Your task to perform on an android device: Open privacy settings Image 0: 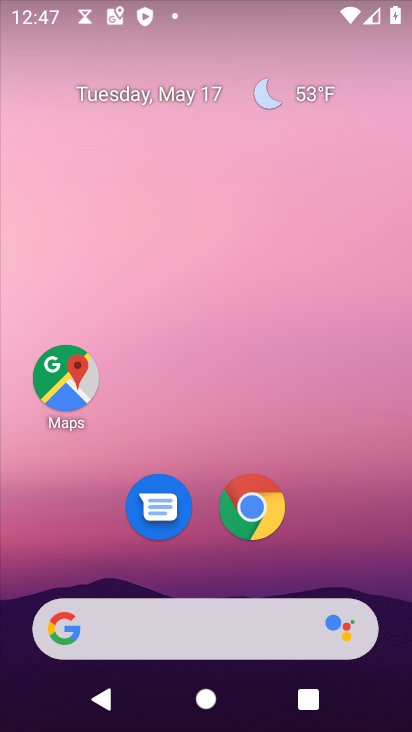
Step 0: drag from (305, 529) to (305, 27)
Your task to perform on an android device: Open privacy settings Image 1: 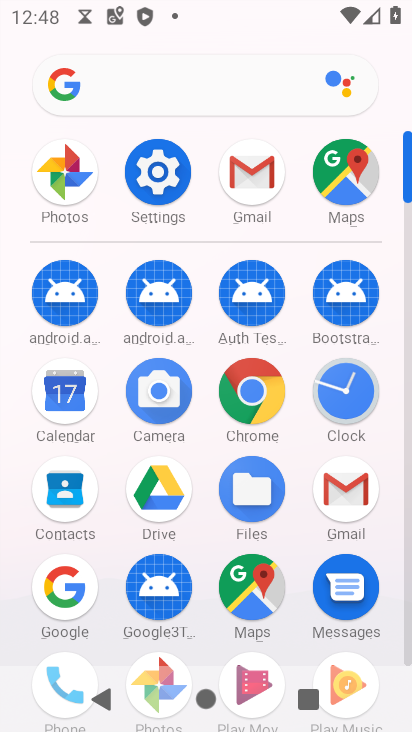
Step 1: click (153, 193)
Your task to perform on an android device: Open privacy settings Image 2: 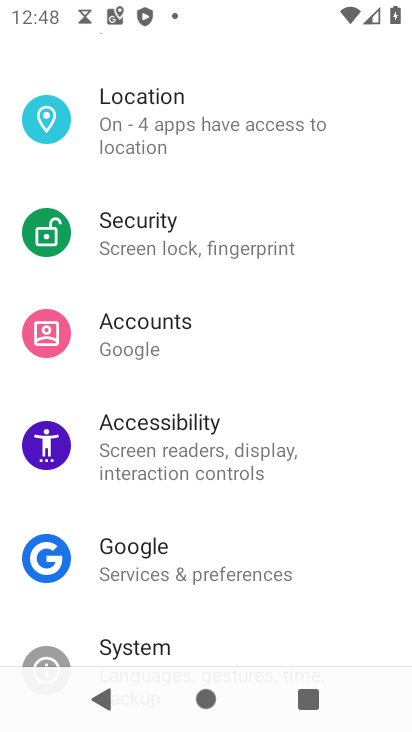
Step 2: drag from (210, 591) to (204, 657)
Your task to perform on an android device: Open privacy settings Image 3: 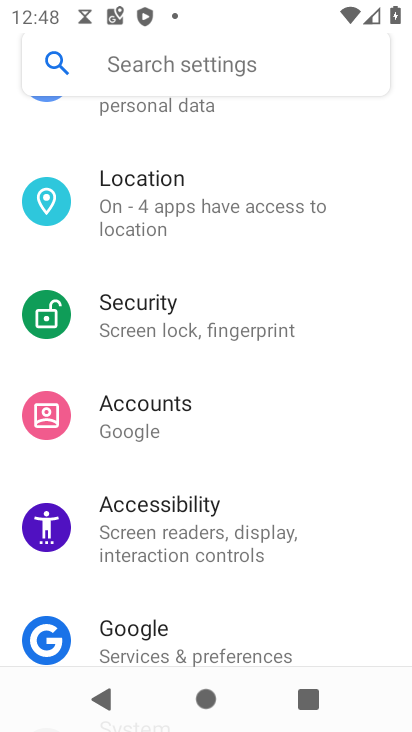
Step 3: drag from (240, 357) to (249, 543)
Your task to perform on an android device: Open privacy settings Image 4: 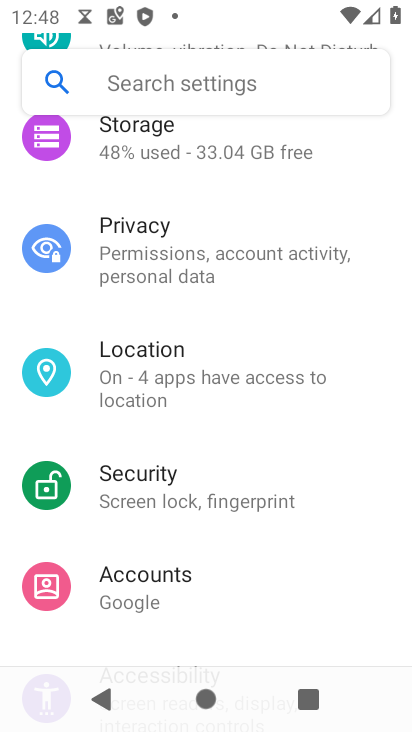
Step 4: click (250, 240)
Your task to perform on an android device: Open privacy settings Image 5: 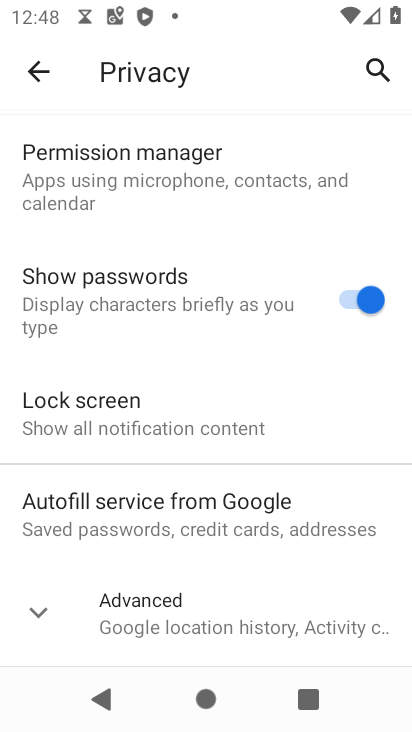
Step 5: task complete